Your task to perform on an android device: Go to Maps Image 0: 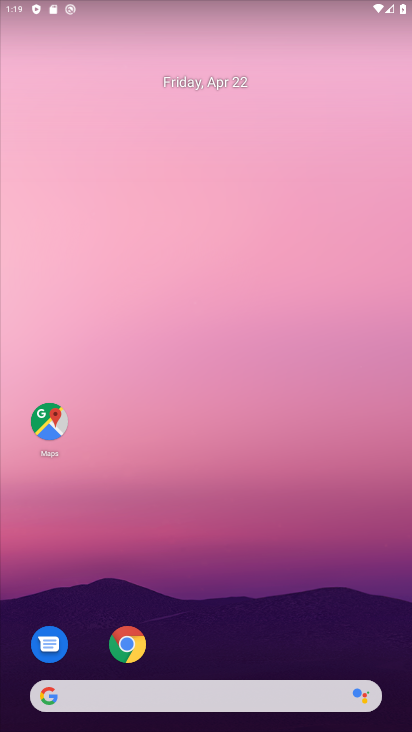
Step 0: click (52, 426)
Your task to perform on an android device: Go to Maps Image 1: 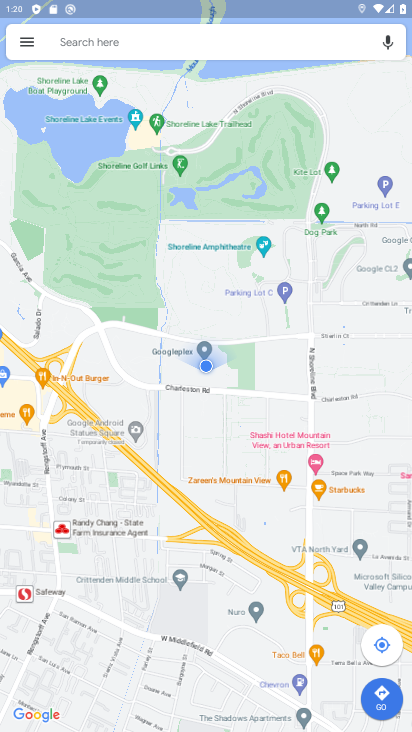
Step 1: task complete